Your task to perform on an android device: turn on improve location accuracy Image 0: 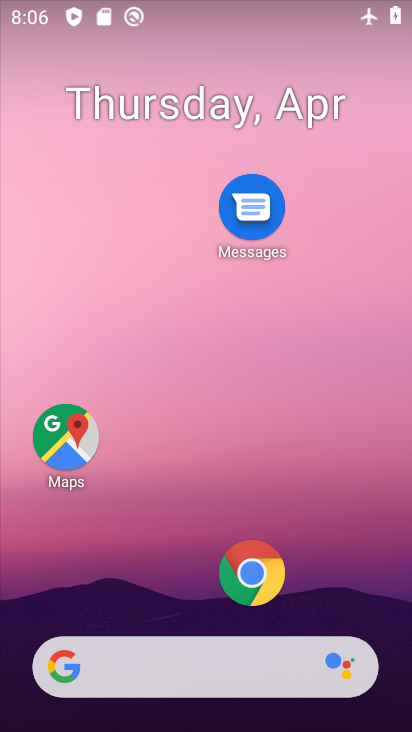
Step 0: drag from (198, 609) to (240, 120)
Your task to perform on an android device: turn on improve location accuracy Image 1: 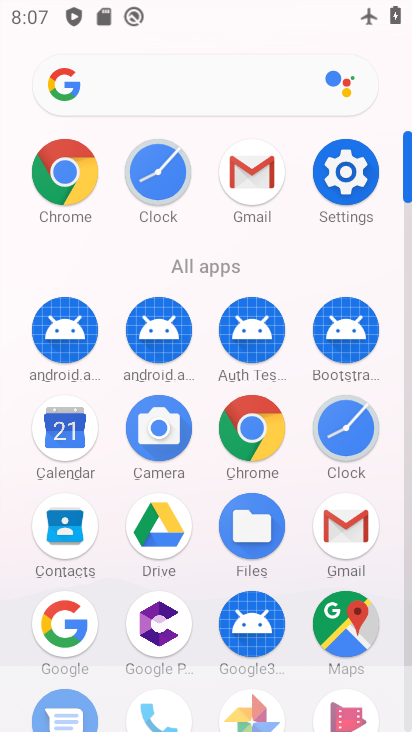
Step 1: click (345, 169)
Your task to perform on an android device: turn on improve location accuracy Image 2: 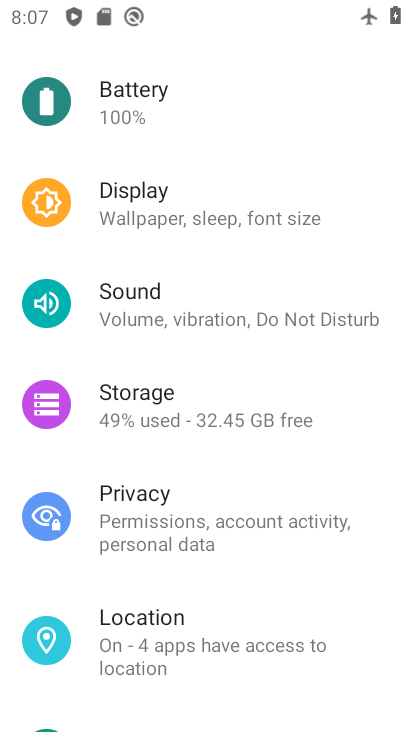
Step 2: click (202, 621)
Your task to perform on an android device: turn on improve location accuracy Image 3: 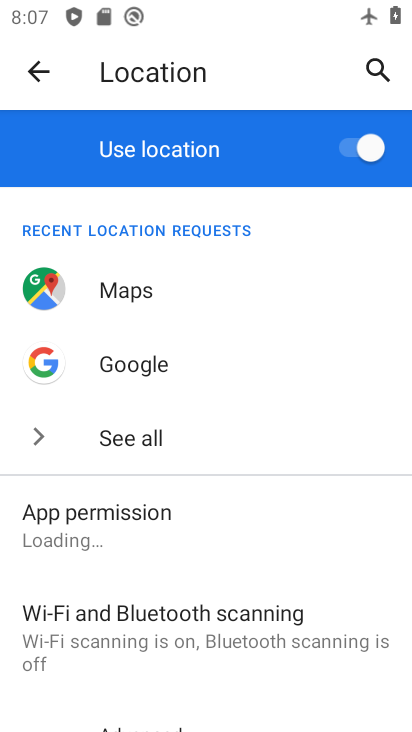
Step 3: drag from (209, 667) to (247, 389)
Your task to perform on an android device: turn on improve location accuracy Image 4: 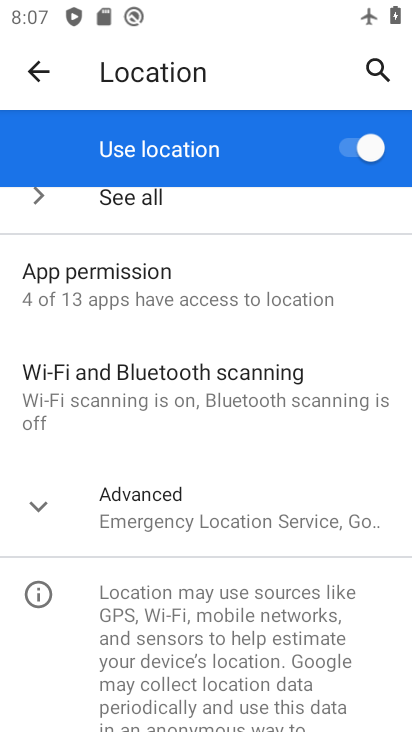
Step 4: click (35, 500)
Your task to perform on an android device: turn on improve location accuracy Image 5: 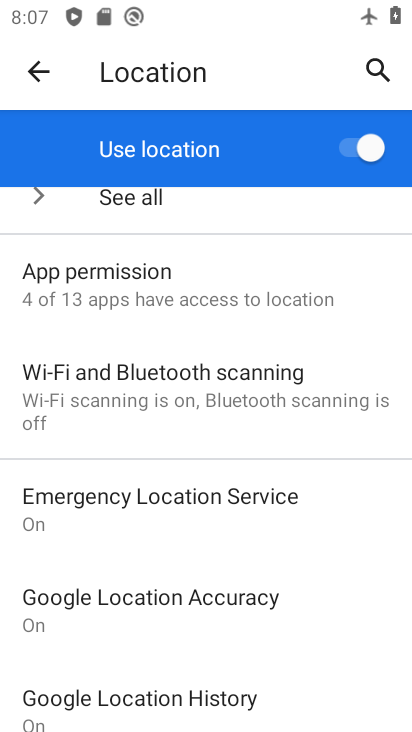
Step 5: click (106, 615)
Your task to perform on an android device: turn on improve location accuracy Image 6: 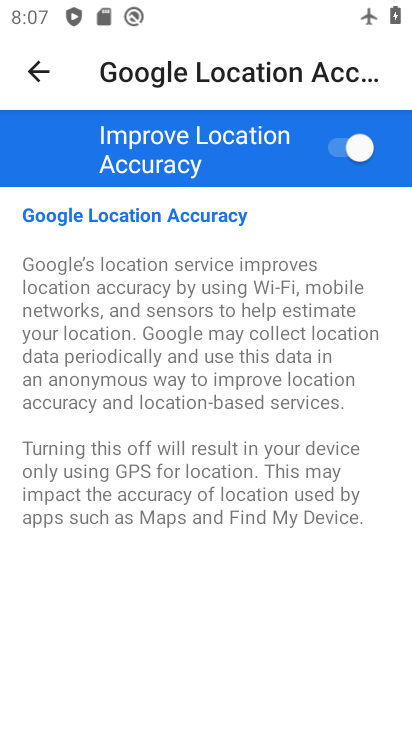
Step 6: task complete